Your task to perform on an android device: Open accessibility settings Image 0: 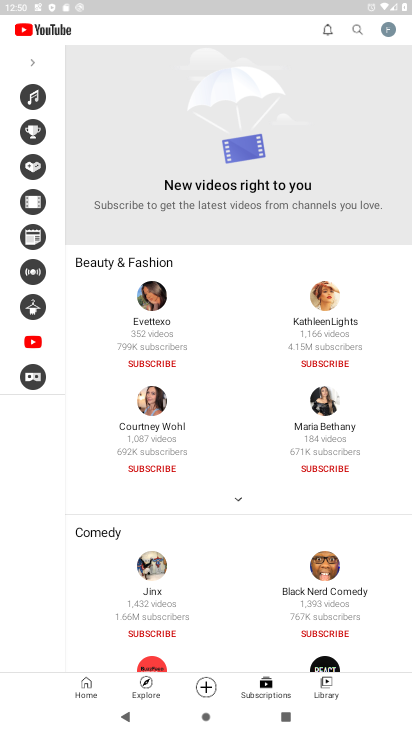
Step 0: press home button
Your task to perform on an android device: Open accessibility settings Image 1: 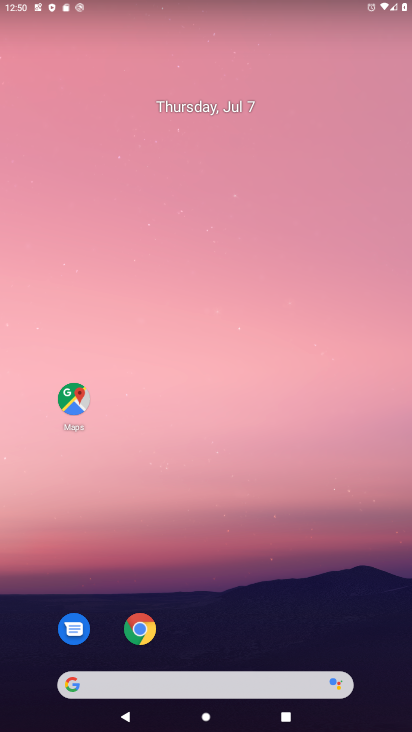
Step 1: drag from (224, 625) to (266, 45)
Your task to perform on an android device: Open accessibility settings Image 2: 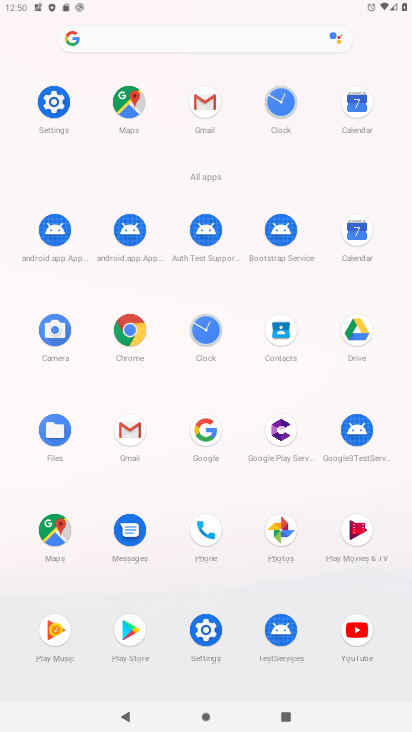
Step 2: click (51, 98)
Your task to perform on an android device: Open accessibility settings Image 3: 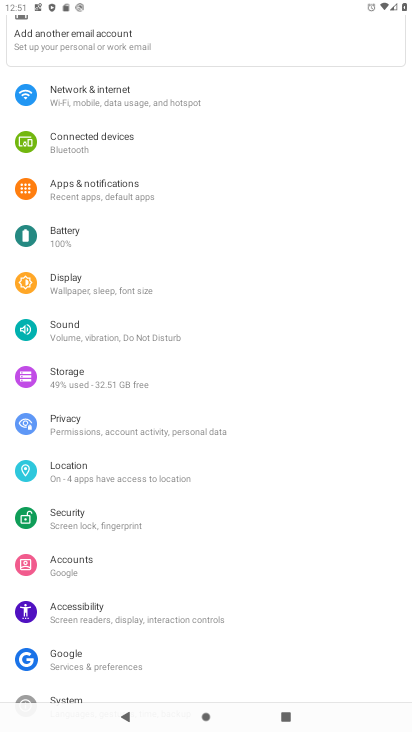
Step 3: click (95, 616)
Your task to perform on an android device: Open accessibility settings Image 4: 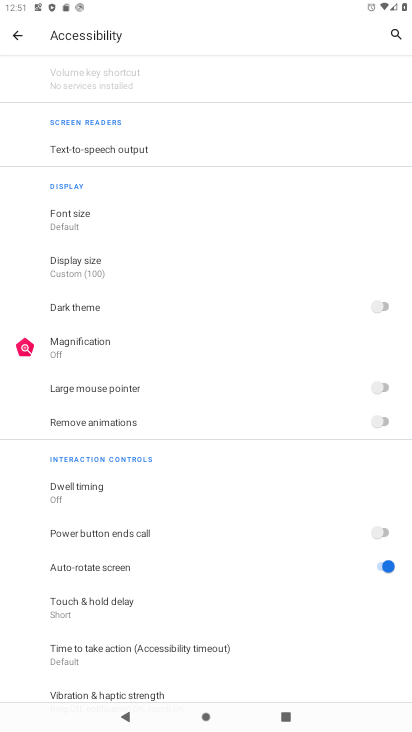
Step 4: task complete